Your task to perform on an android device: open a bookmark in the chrome app Image 0: 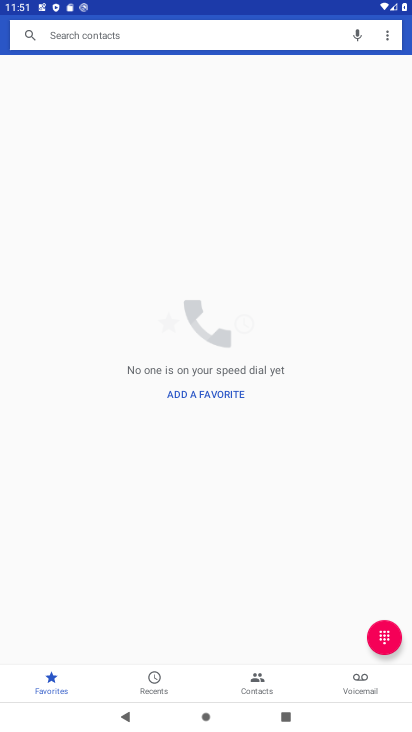
Step 0: press home button
Your task to perform on an android device: open a bookmark in the chrome app Image 1: 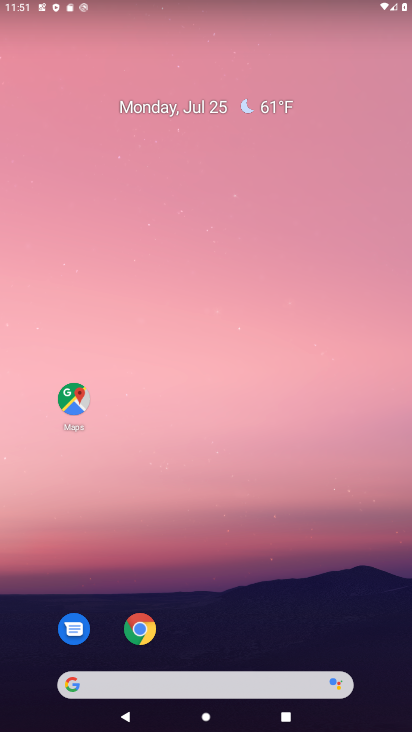
Step 1: click (146, 630)
Your task to perform on an android device: open a bookmark in the chrome app Image 2: 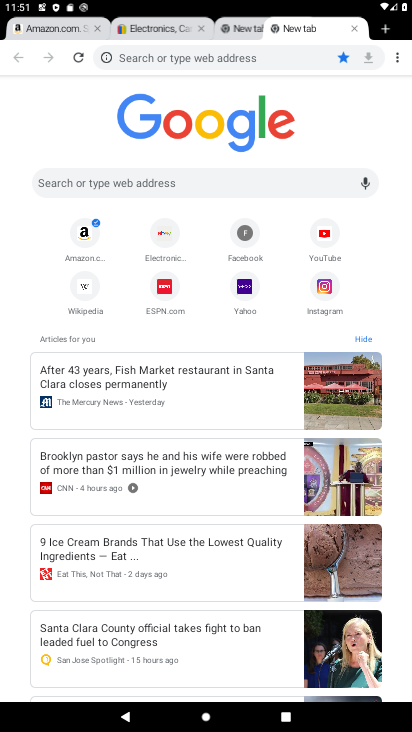
Step 2: click (393, 64)
Your task to perform on an android device: open a bookmark in the chrome app Image 3: 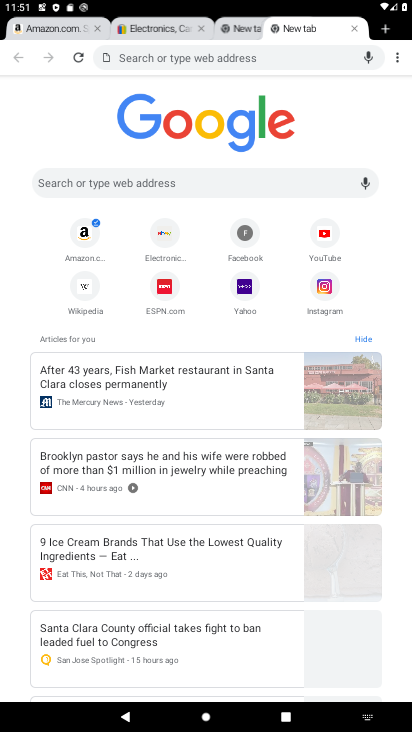
Step 3: drag from (393, 64) to (312, 120)
Your task to perform on an android device: open a bookmark in the chrome app Image 4: 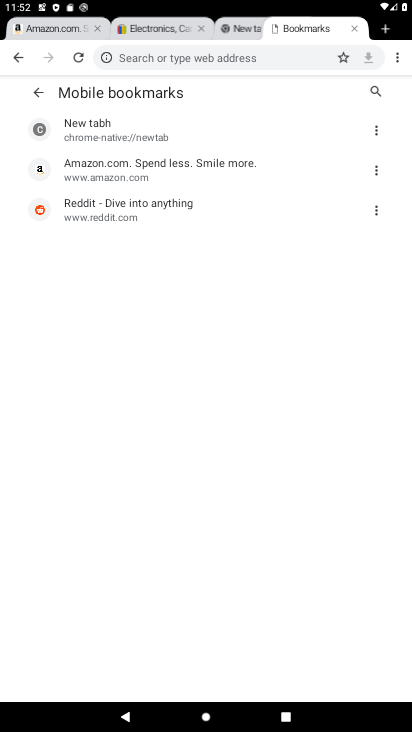
Step 4: click (135, 180)
Your task to perform on an android device: open a bookmark in the chrome app Image 5: 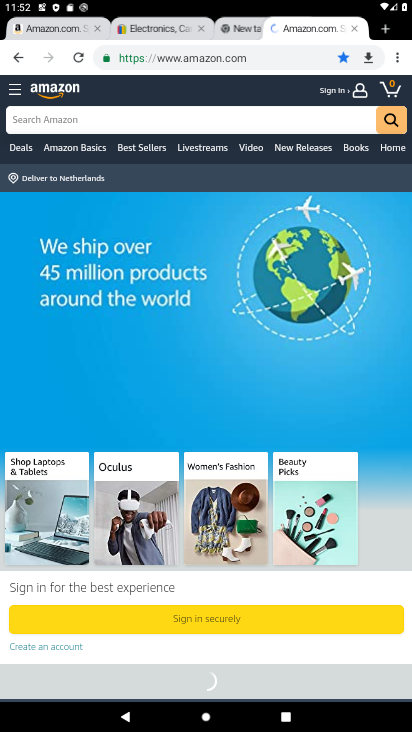
Step 5: task complete